Your task to perform on an android device: Clear the cart on bestbuy. Image 0: 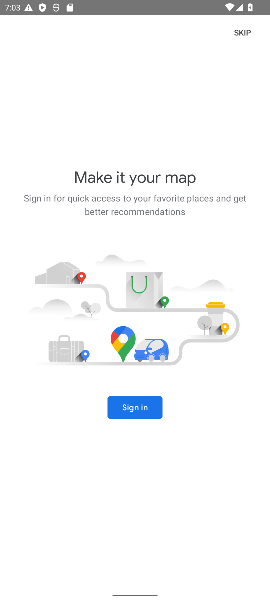
Step 0: press home button
Your task to perform on an android device: Clear the cart on bestbuy. Image 1: 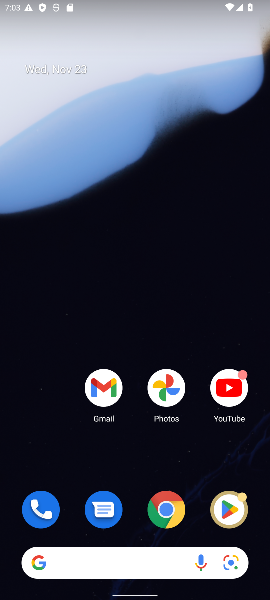
Step 1: click (169, 514)
Your task to perform on an android device: Clear the cart on bestbuy. Image 2: 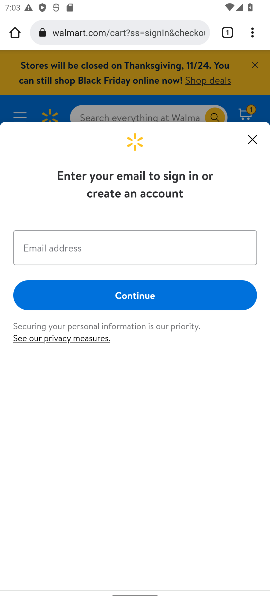
Step 2: click (127, 29)
Your task to perform on an android device: Clear the cart on bestbuy. Image 3: 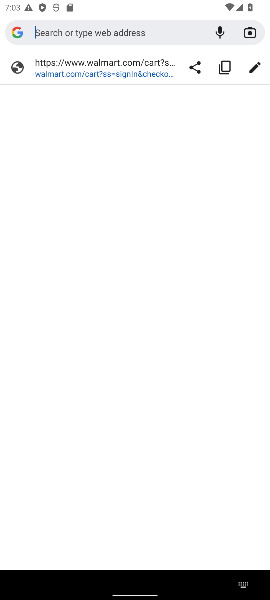
Step 3: type "bestbuy"
Your task to perform on an android device: Clear the cart on bestbuy. Image 4: 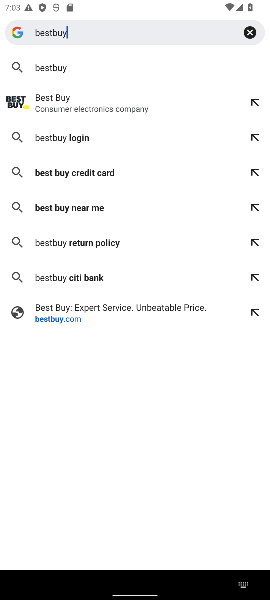
Step 4: click (92, 314)
Your task to perform on an android device: Clear the cart on bestbuy. Image 5: 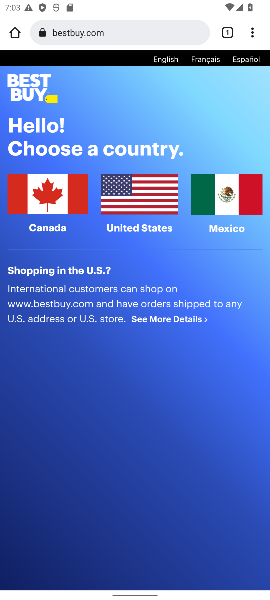
Step 5: click (136, 176)
Your task to perform on an android device: Clear the cart on bestbuy. Image 6: 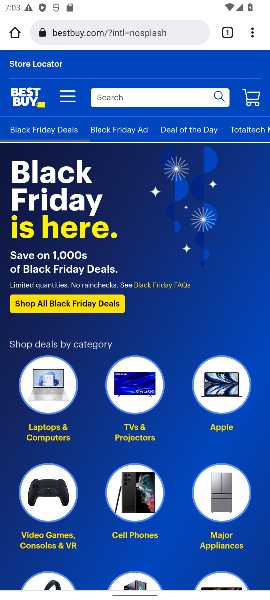
Step 6: click (249, 96)
Your task to perform on an android device: Clear the cart on bestbuy. Image 7: 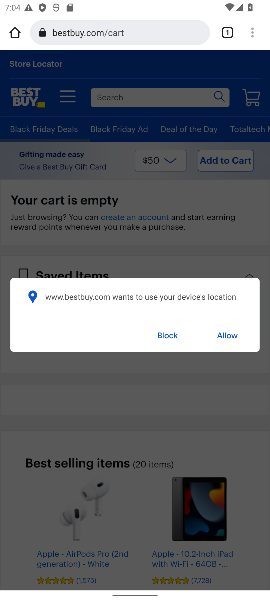
Step 7: click (221, 334)
Your task to perform on an android device: Clear the cart on bestbuy. Image 8: 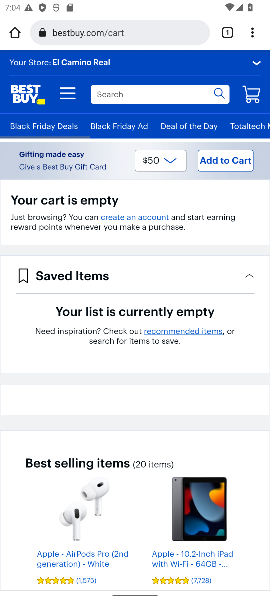
Step 8: task complete